Your task to perform on an android device: star an email in the gmail app Image 0: 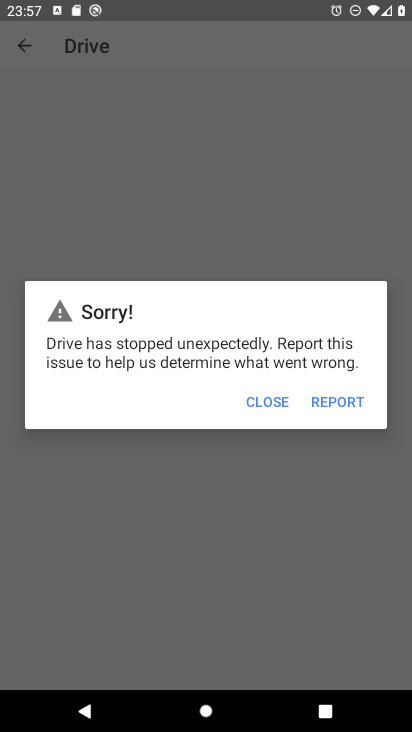
Step 0: press home button
Your task to perform on an android device: star an email in the gmail app Image 1: 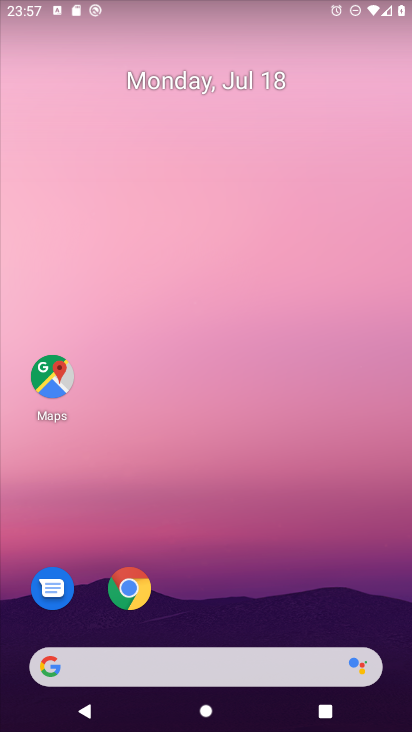
Step 1: drag from (383, 606) to (354, 100)
Your task to perform on an android device: star an email in the gmail app Image 2: 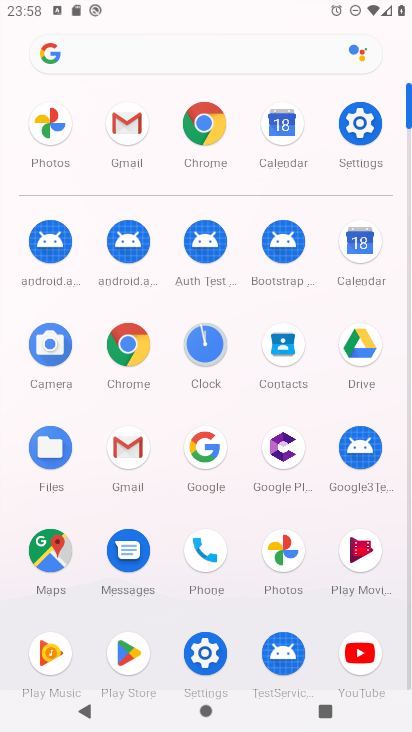
Step 2: click (127, 450)
Your task to perform on an android device: star an email in the gmail app Image 3: 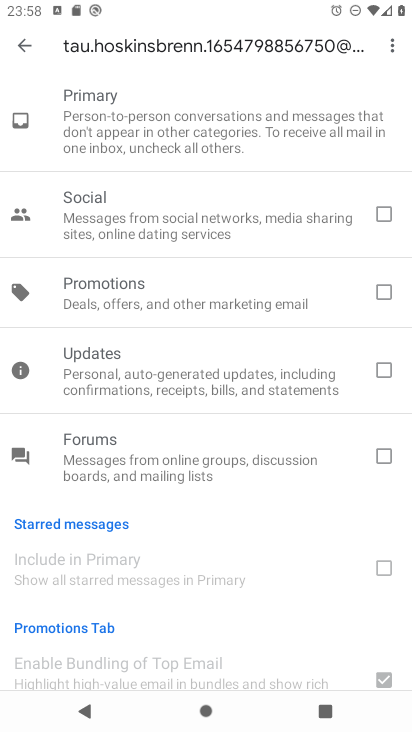
Step 3: press back button
Your task to perform on an android device: star an email in the gmail app Image 4: 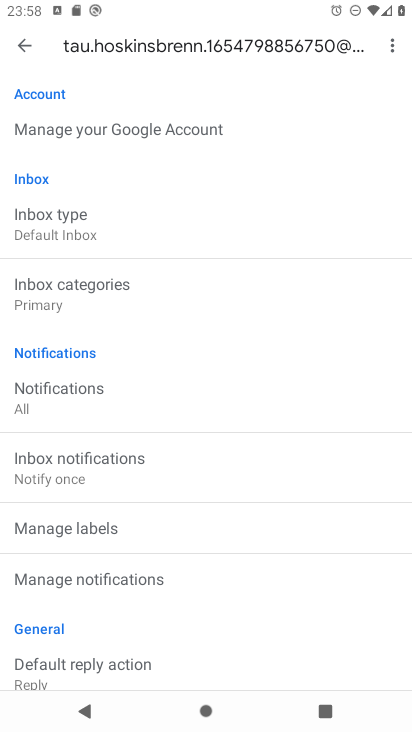
Step 4: press back button
Your task to perform on an android device: star an email in the gmail app Image 5: 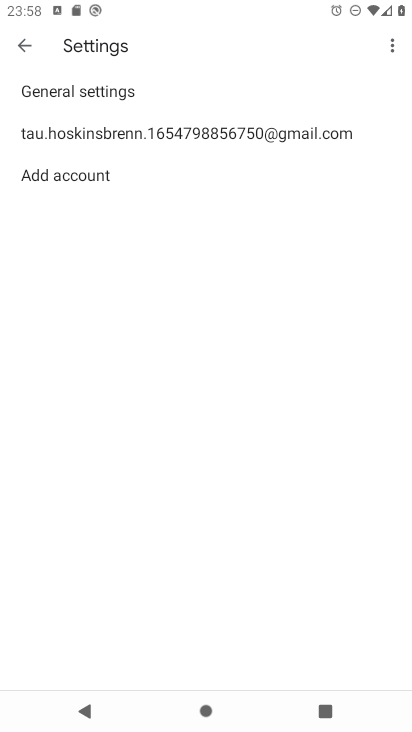
Step 5: press back button
Your task to perform on an android device: star an email in the gmail app Image 6: 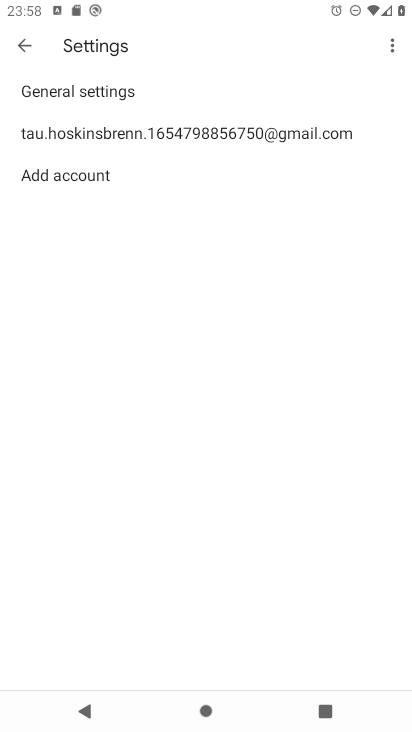
Step 6: press back button
Your task to perform on an android device: star an email in the gmail app Image 7: 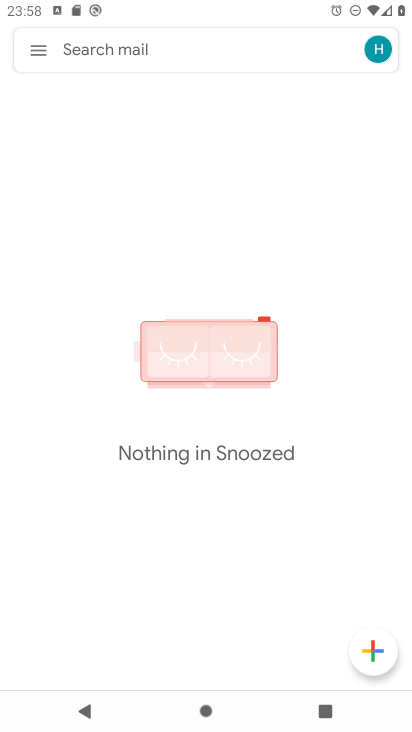
Step 7: click (37, 48)
Your task to perform on an android device: star an email in the gmail app Image 8: 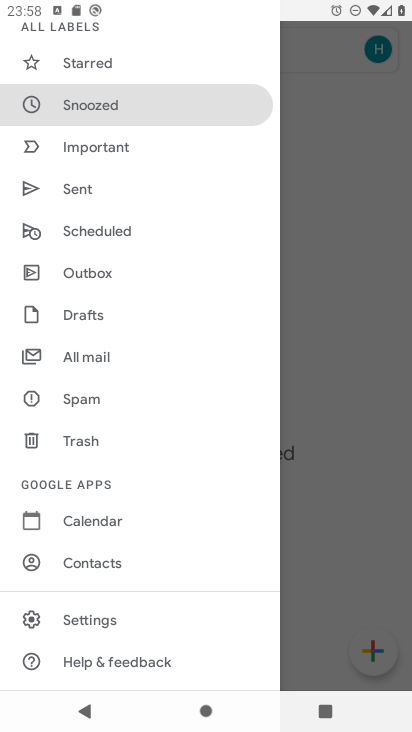
Step 8: click (88, 351)
Your task to perform on an android device: star an email in the gmail app Image 9: 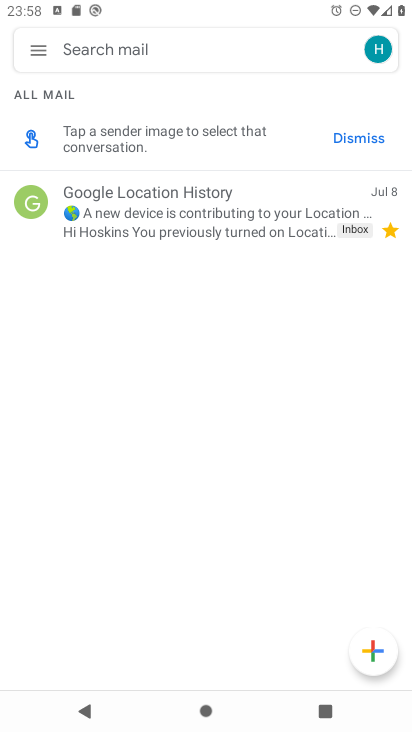
Step 9: task complete